Your task to perform on an android device: turn on showing notifications on the lock screen Image 0: 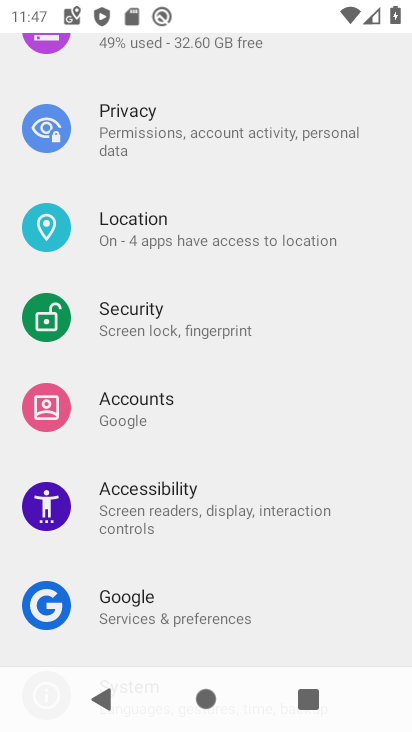
Step 0: drag from (284, 162) to (293, 571)
Your task to perform on an android device: turn on showing notifications on the lock screen Image 1: 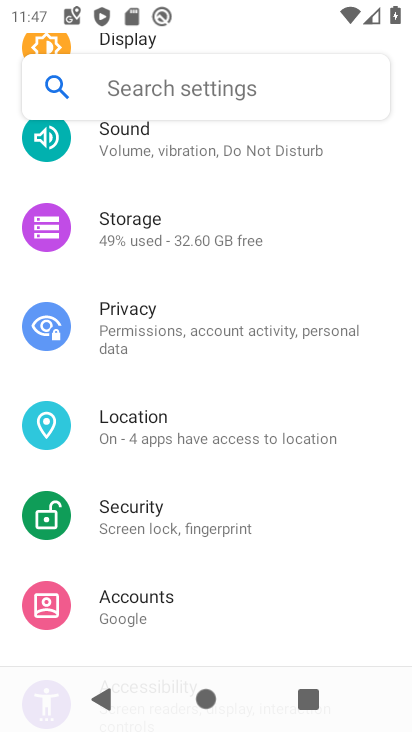
Step 1: drag from (247, 223) to (270, 594)
Your task to perform on an android device: turn on showing notifications on the lock screen Image 2: 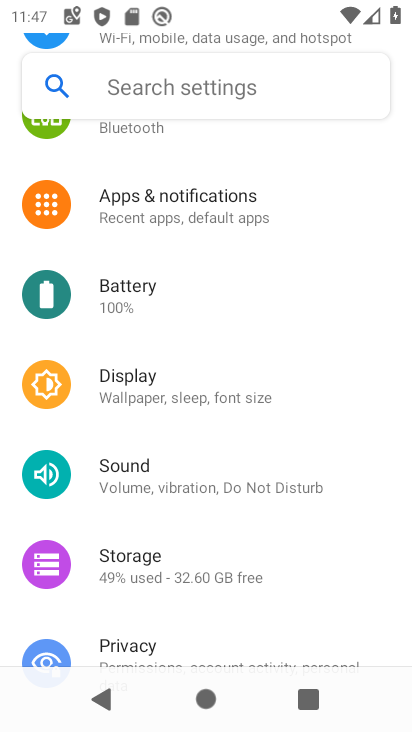
Step 2: click (205, 224)
Your task to perform on an android device: turn on showing notifications on the lock screen Image 3: 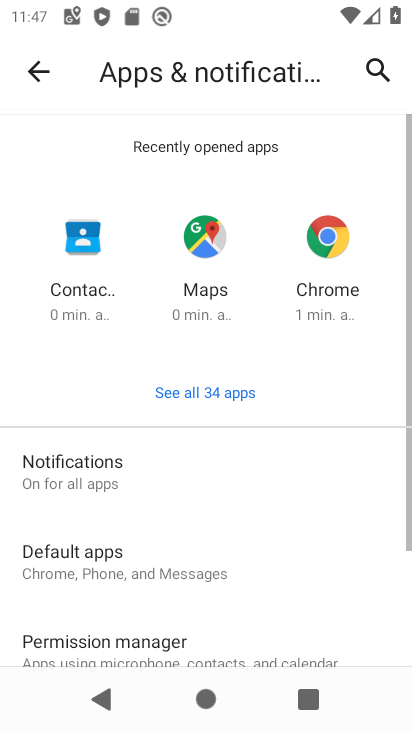
Step 3: click (121, 486)
Your task to perform on an android device: turn on showing notifications on the lock screen Image 4: 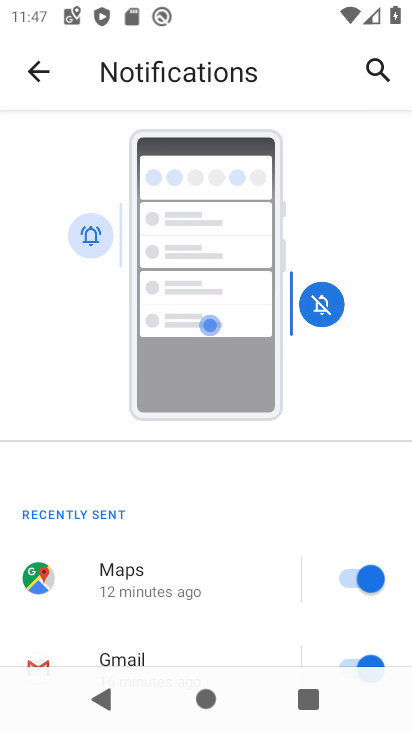
Step 4: drag from (202, 555) to (260, 42)
Your task to perform on an android device: turn on showing notifications on the lock screen Image 5: 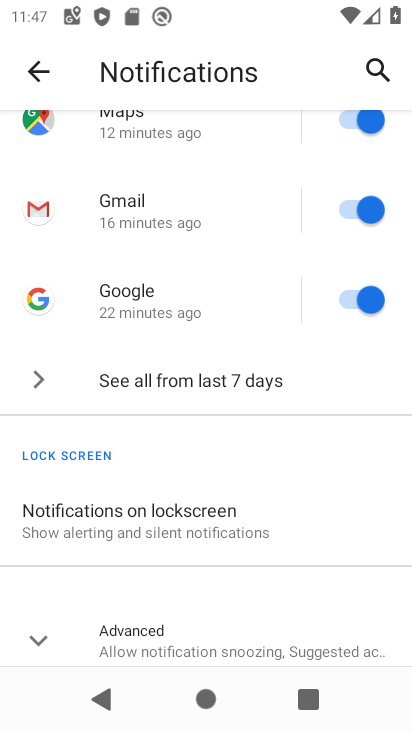
Step 5: click (219, 528)
Your task to perform on an android device: turn on showing notifications on the lock screen Image 6: 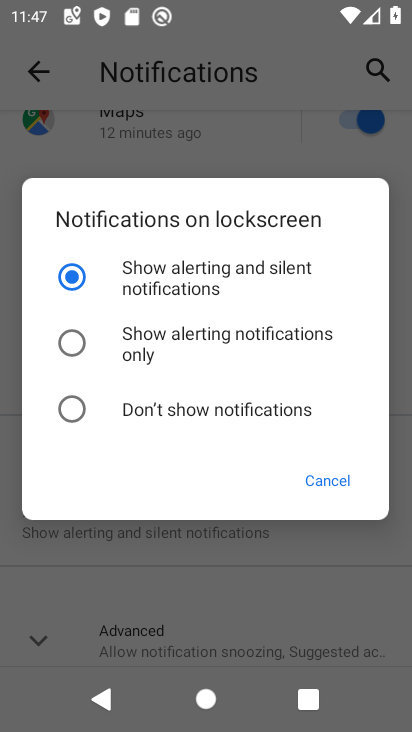
Step 6: click (139, 347)
Your task to perform on an android device: turn on showing notifications on the lock screen Image 7: 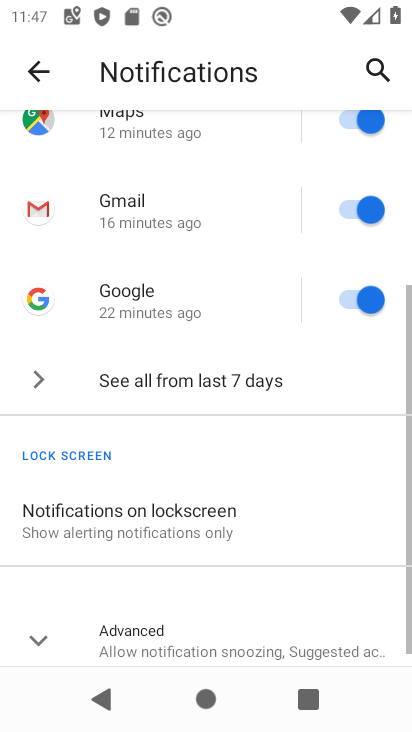
Step 7: task complete